Your task to perform on an android device: set an alarm Image 0: 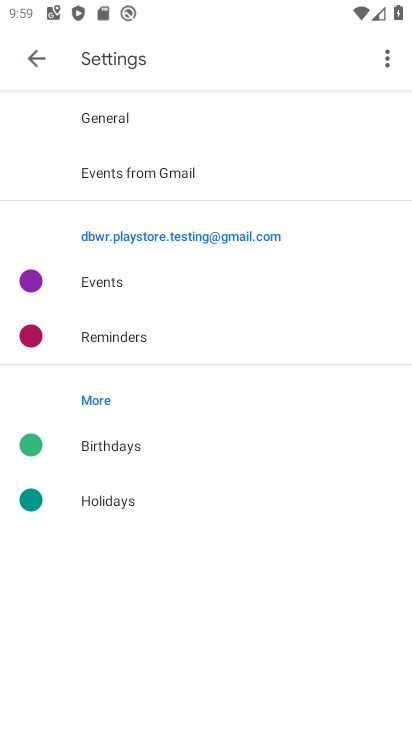
Step 0: press home button
Your task to perform on an android device: set an alarm Image 1: 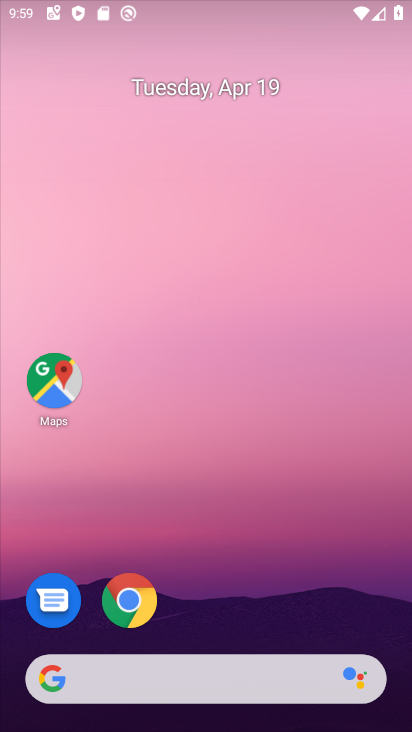
Step 1: drag from (292, 613) to (283, 43)
Your task to perform on an android device: set an alarm Image 2: 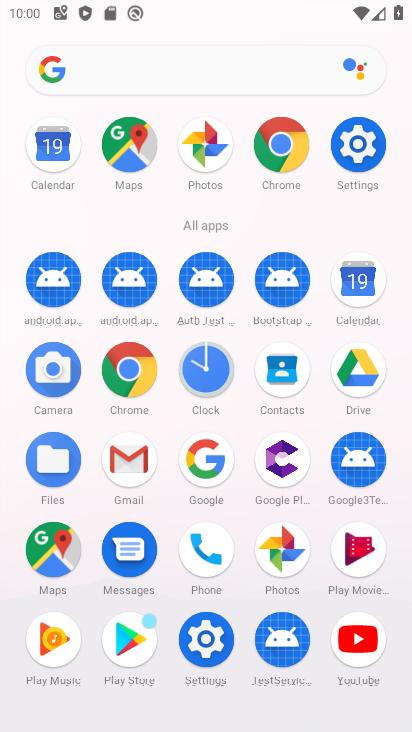
Step 2: click (200, 373)
Your task to perform on an android device: set an alarm Image 3: 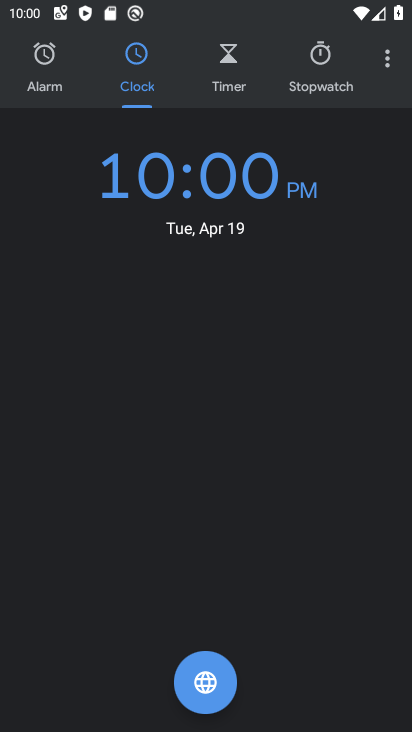
Step 3: click (46, 52)
Your task to perform on an android device: set an alarm Image 4: 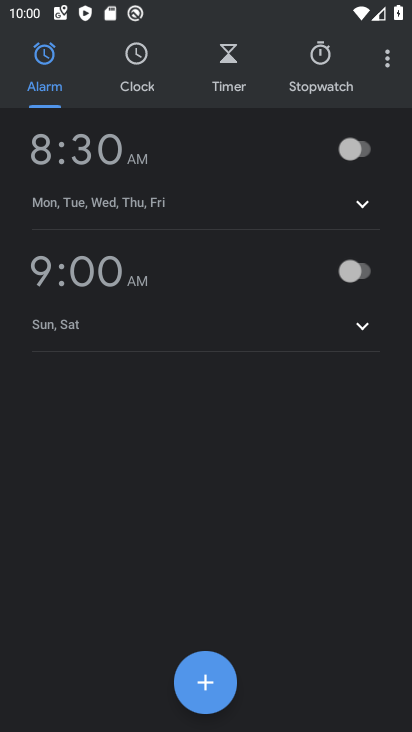
Step 4: click (351, 143)
Your task to perform on an android device: set an alarm Image 5: 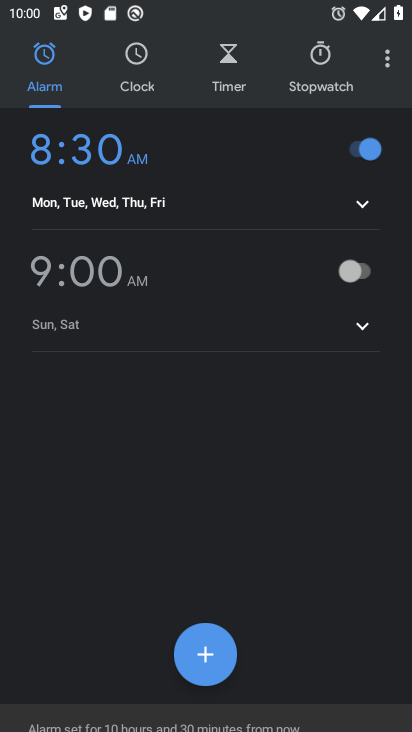
Step 5: task complete